Your task to perform on an android device: open device folders in google photos Image 0: 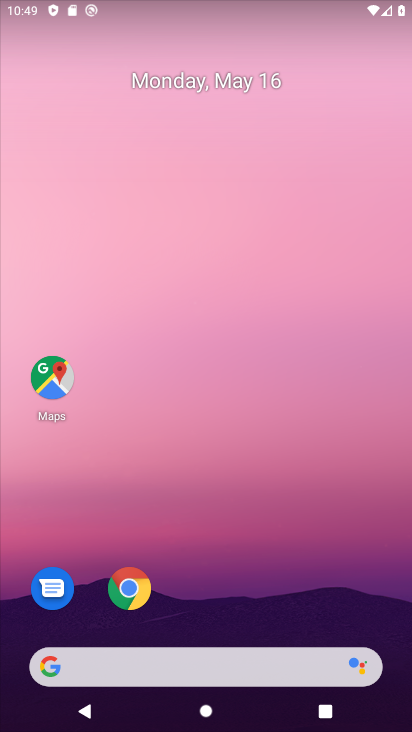
Step 0: drag from (302, 198) to (307, 99)
Your task to perform on an android device: open device folders in google photos Image 1: 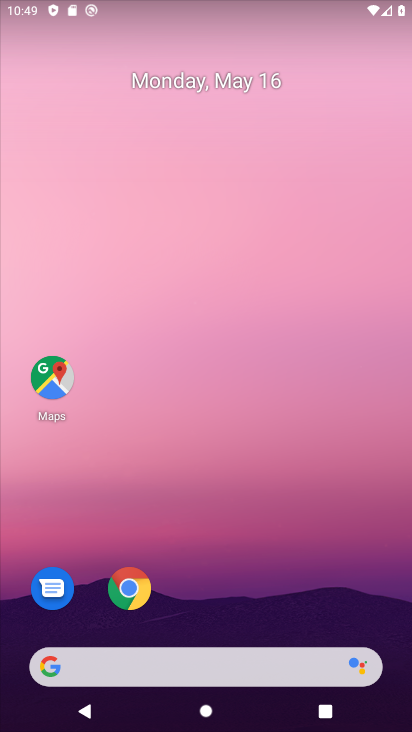
Step 1: drag from (308, 557) to (317, 15)
Your task to perform on an android device: open device folders in google photos Image 2: 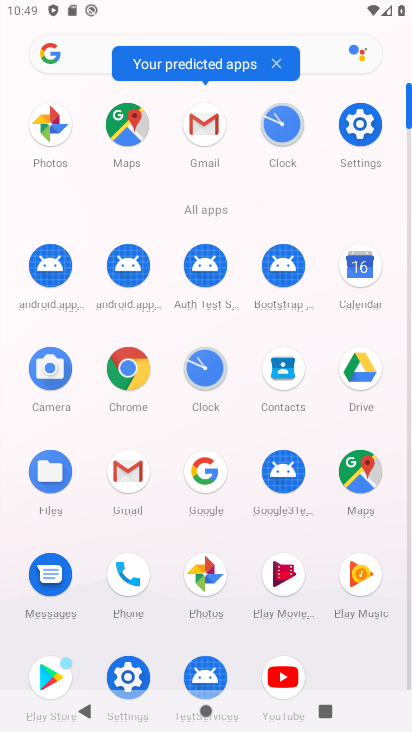
Step 2: click (204, 577)
Your task to perform on an android device: open device folders in google photos Image 3: 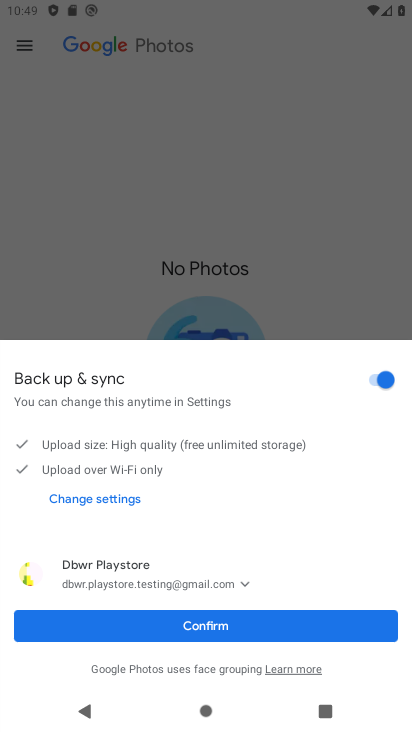
Step 3: click (200, 629)
Your task to perform on an android device: open device folders in google photos Image 4: 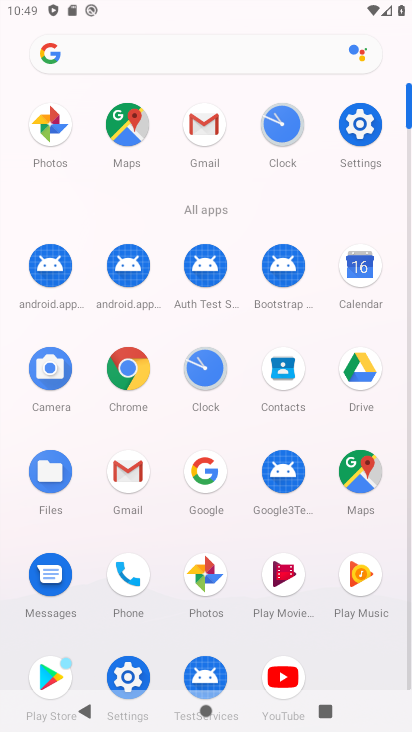
Step 4: click (206, 584)
Your task to perform on an android device: open device folders in google photos Image 5: 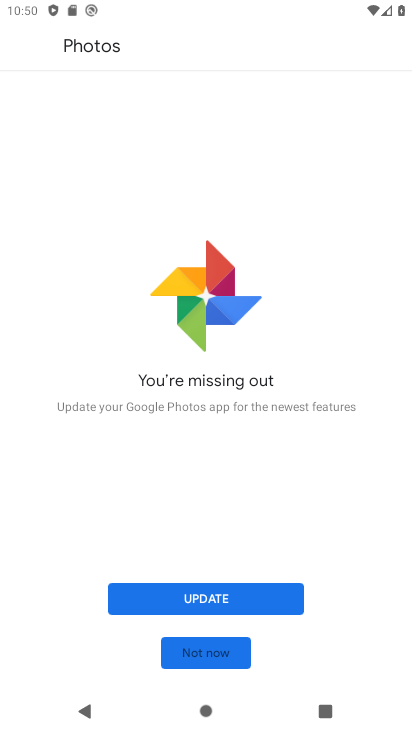
Step 5: click (152, 608)
Your task to perform on an android device: open device folders in google photos Image 6: 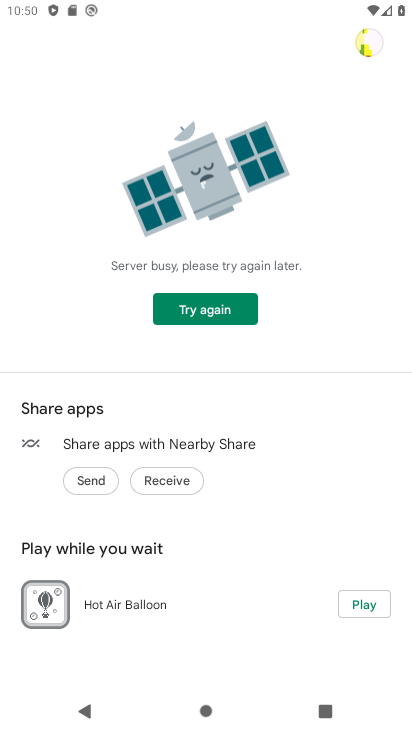
Step 6: click (227, 304)
Your task to perform on an android device: open device folders in google photos Image 7: 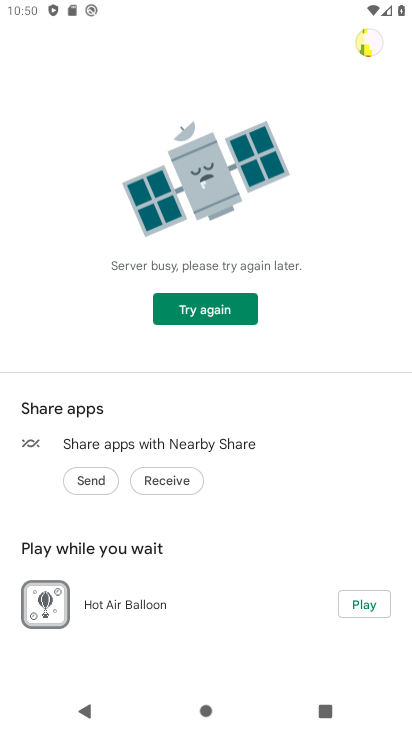
Step 7: task complete